Your task to perform on an android device: stop showing notifications on the lock screen Image 0: 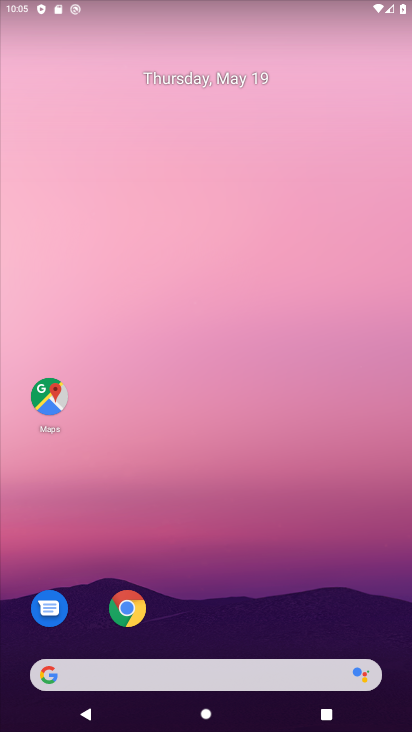
Step 0: drag from (385, 659) to (355, 197)
Your task to perform on an android device: stop showing notifications on the lock screen Image 1: 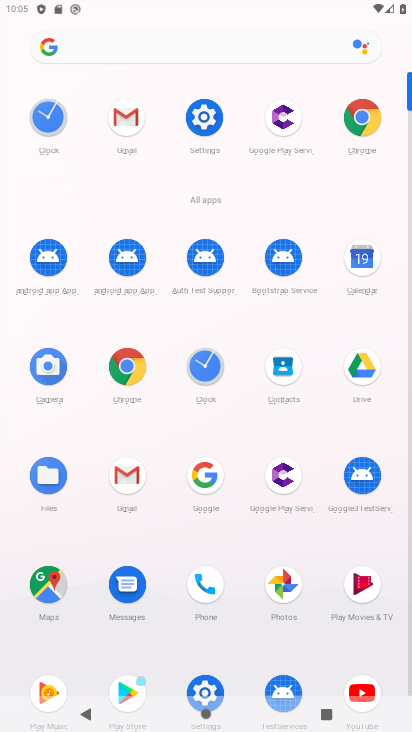
Step 1: click (202, 112)
Your task to perform on an android device: stop showing notifications on the lock screen Image 2: 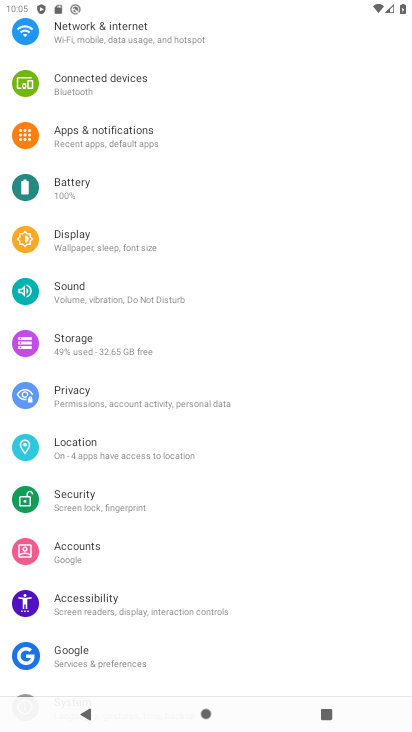
Step 2: click (84, 134)
Your task to perform on an android device: stop showing notifications on the lock screen Image 3: 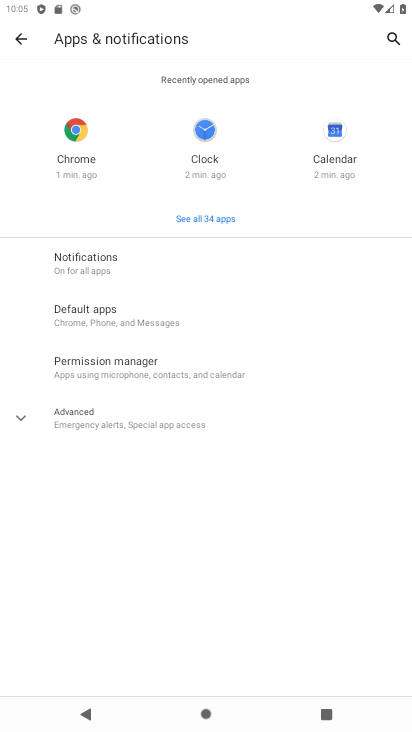
Step 3: click (69, 257)
Your task to perform on an android device: stop showing notifications on the lock screen Image 4: 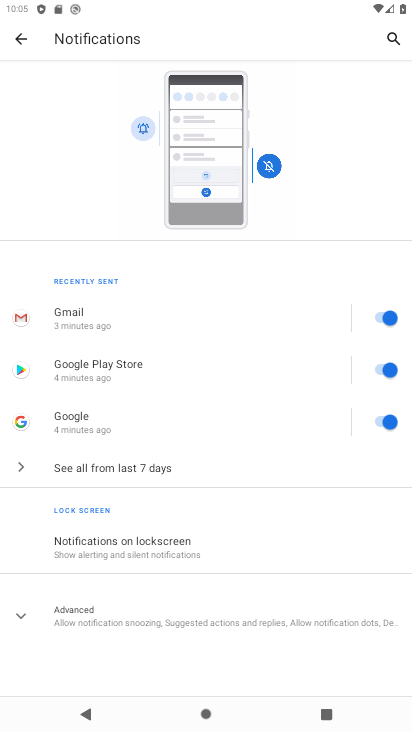
Step 4: click (94, 543)
Your task to perform on an android device: stop showing notifications on the lock screen Image 5: 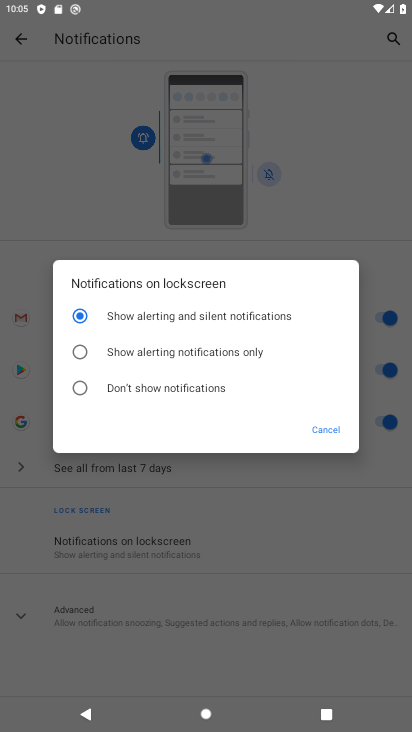
Step 5: click (75, 387)
Your task to perform on an android device: stop showing notifications on the lock screen Image 6: 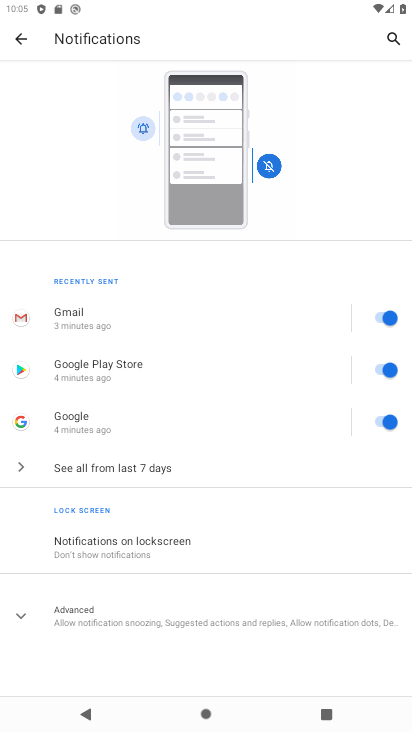
Step 6: task complete